Your task to perform on an android device: turn on translation in the chrome app Image 0: 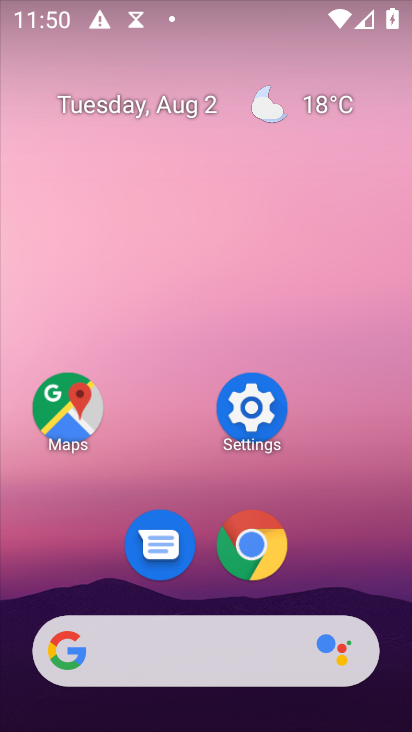
Step 0: click (255, 538)
Your task to perform on an android device: turn on translation in the chrome app Image 1: 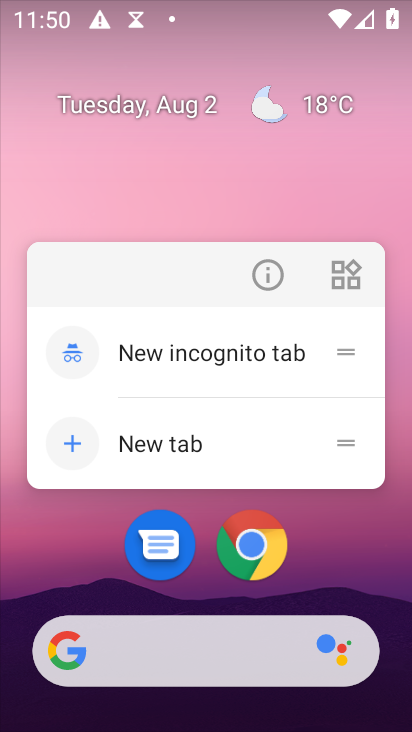
Step 1: click (255, 539)
Your task to perform on an android device: turn on translation in the chrome app Image 2: 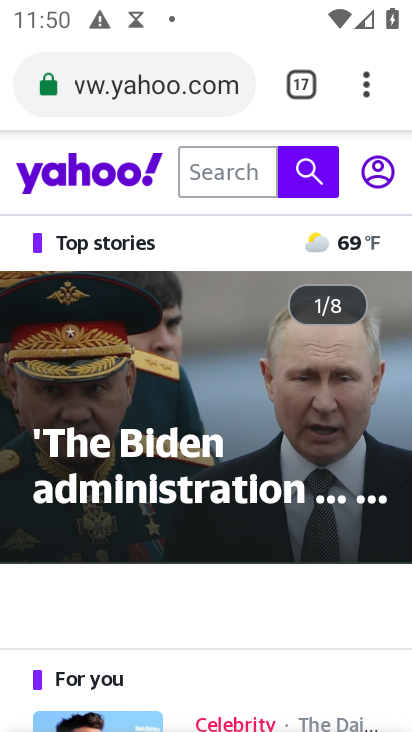
Step 2: drag from (364, 84) to (191, 616)
Your task to perform on an android device: turn on translation in the chrome app Image 3: 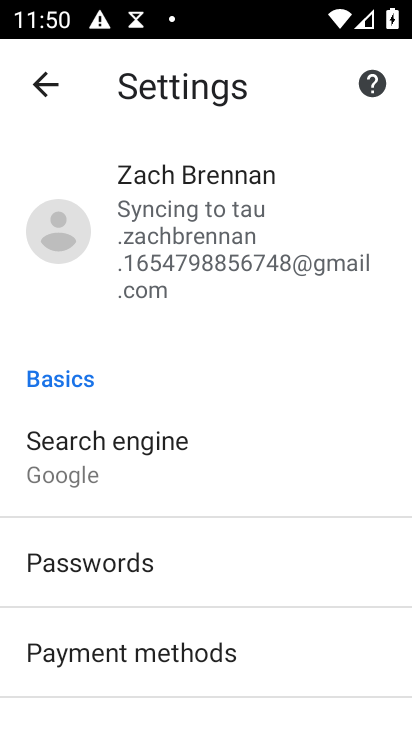
Step 3: drag from (201, 666) to (304, 172)
Your task to perform on an android device: turn on translation in the chrome app Image 4: 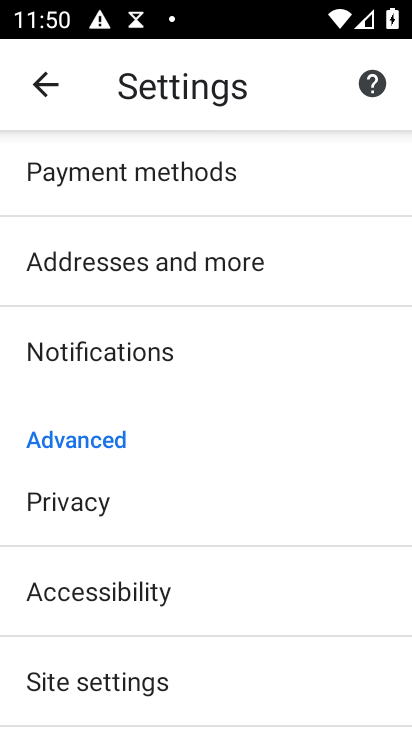
Step 4: drag from (201, 639) to (311, 277)
Your task to perform on an android device: turn on translation in the chrome app Image 5: 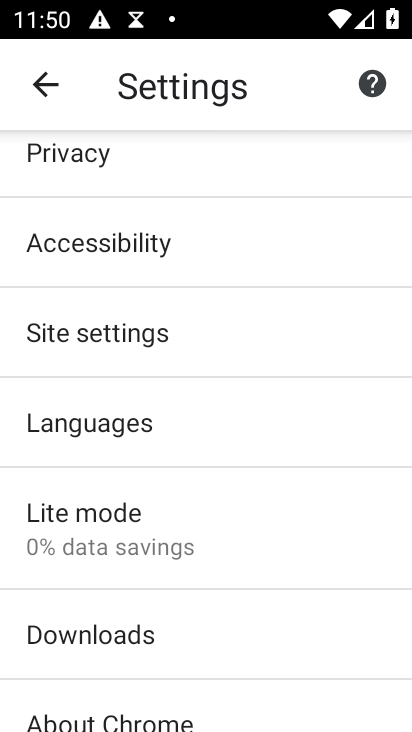
Step 5: click (176, 423)
Your task to perform on an android device: turn on translation in the chrome app Image 6: 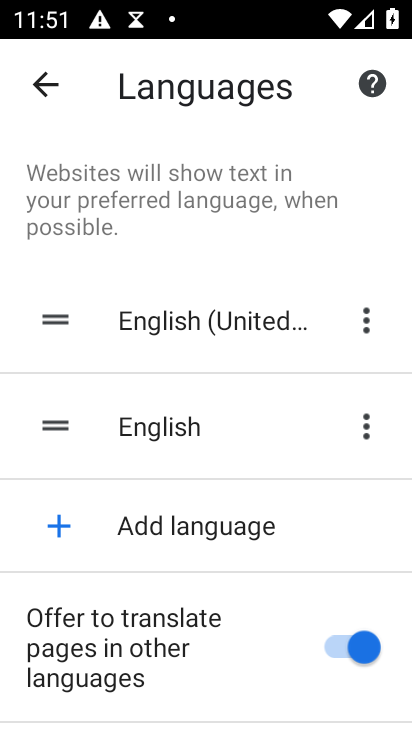
Step 6: task complete